Your task to perform on an android device: allow notifications from all sites in the chrome app Image 0: 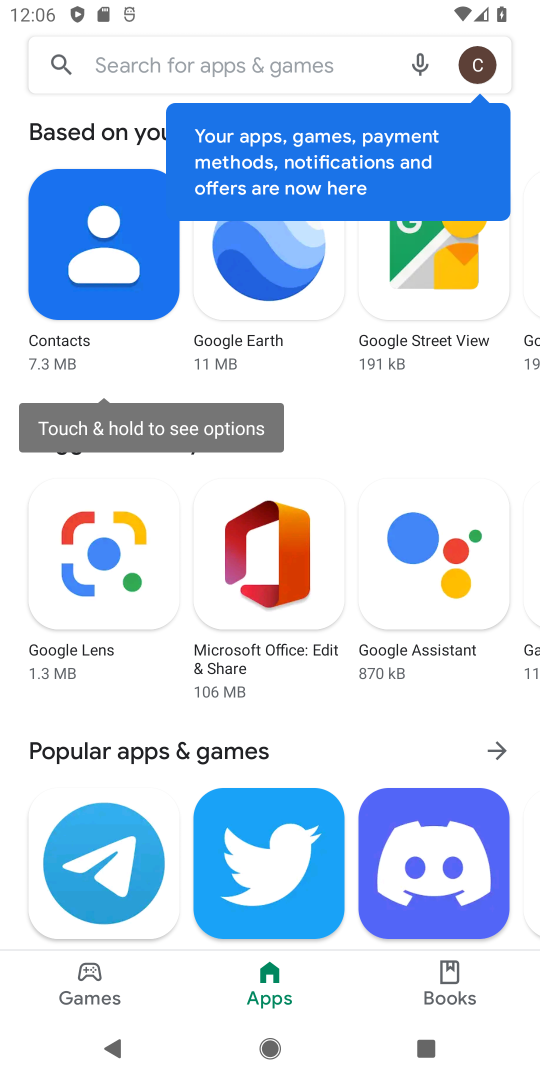
Step 0: press home button
Your task to perform on an android device: allow notifications from all sites in the chrome app Image 1: 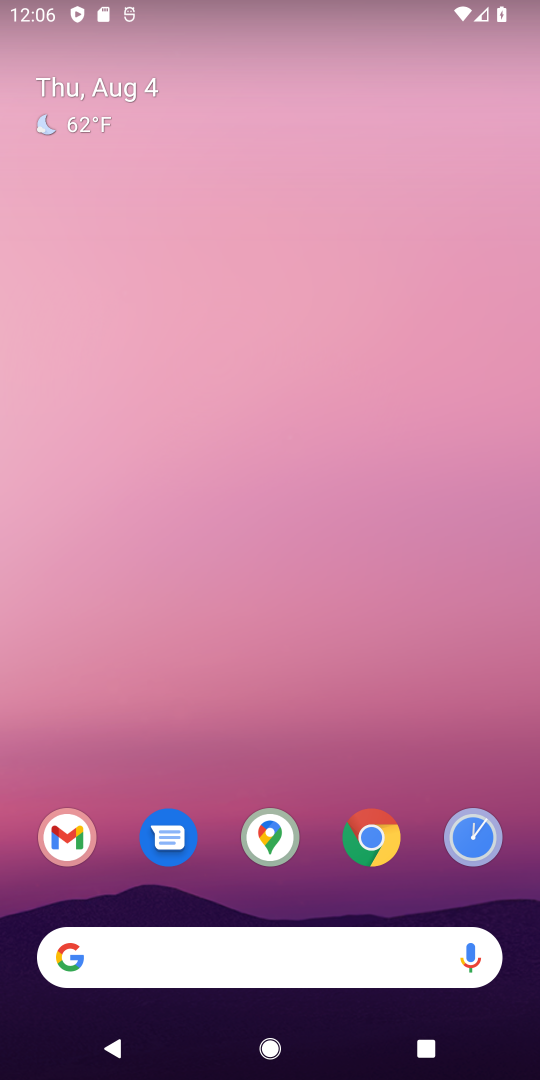
Step 1: click (359, 839)
Your task to perform on an android device: allow notifications from all sites in the chrome app Image 2: 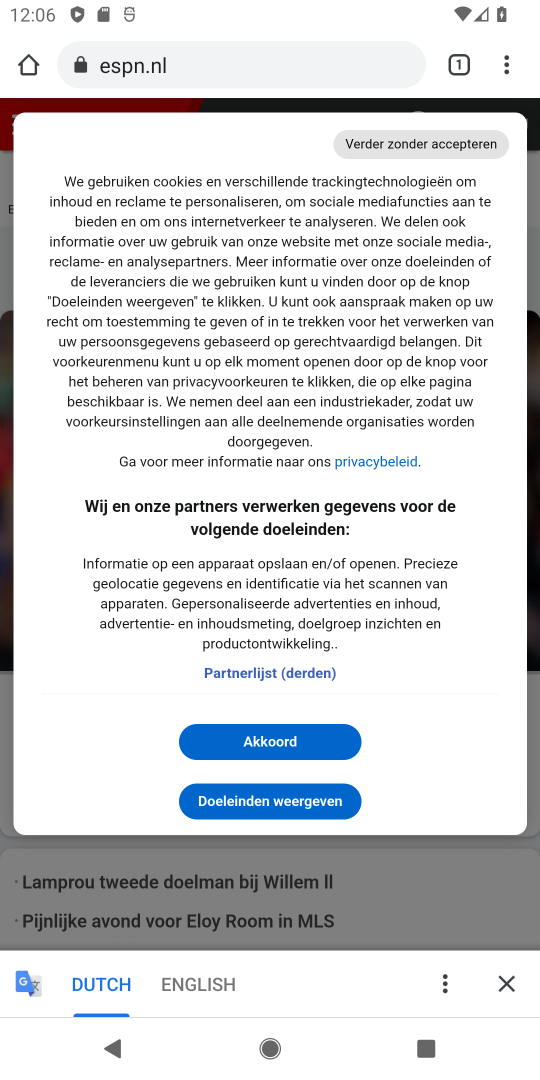
Step 2: click (500, 77)
Your task to perform on an android device: allow notifications from all sites in the chrome app Image 3: 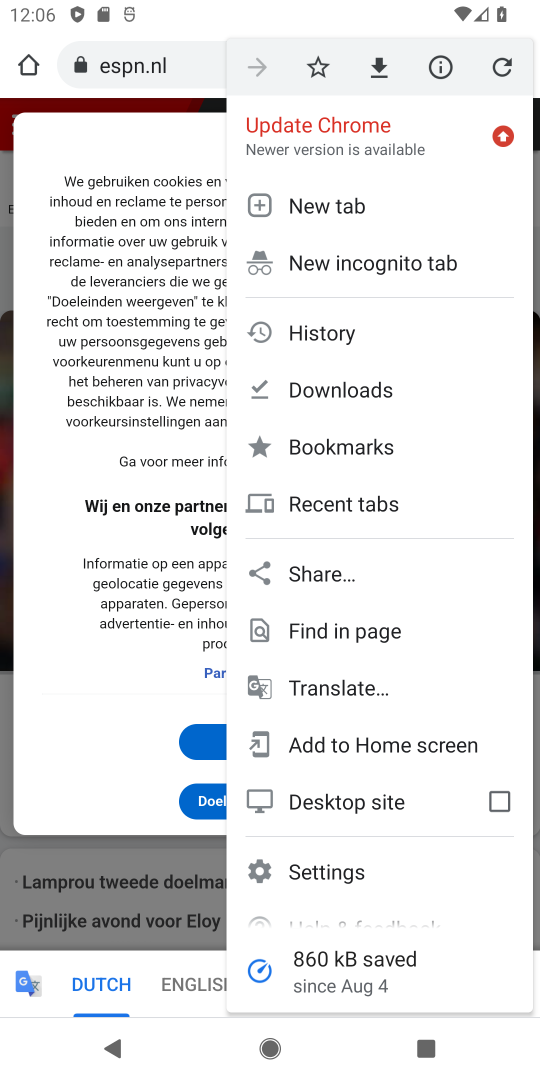
Step 3: click (317, 866)
Your task to perform on an android device: allow notifications from all sites in the chrome app Image 4: 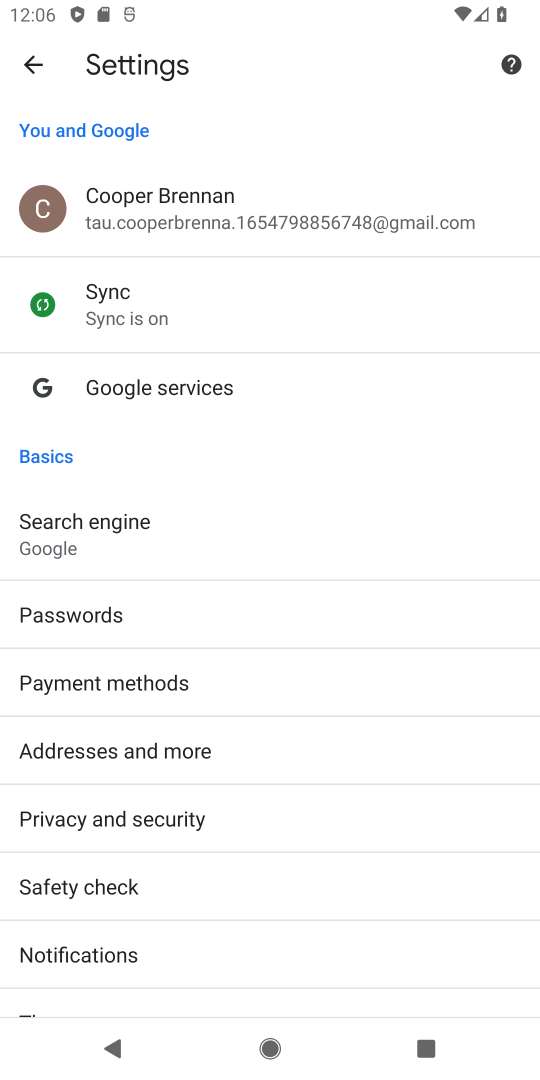
Step 4: click (191, 948)
Your task to perform on an android device: allow notifications from all sites in the chrome app Image 5: 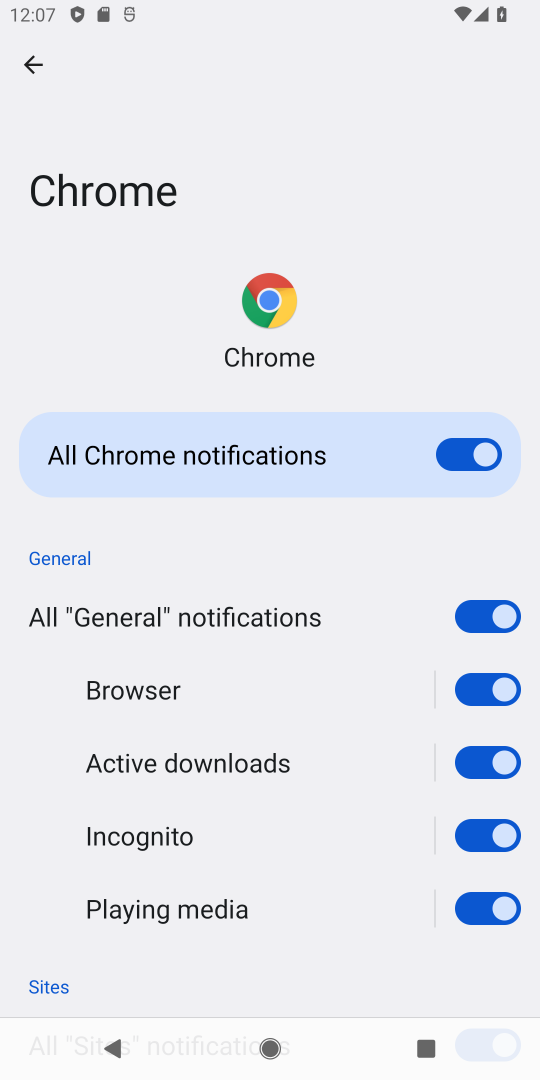
Step 5: task complete